Your task to perform on an android device: Search for Italian restaurants on Maps Image 0: 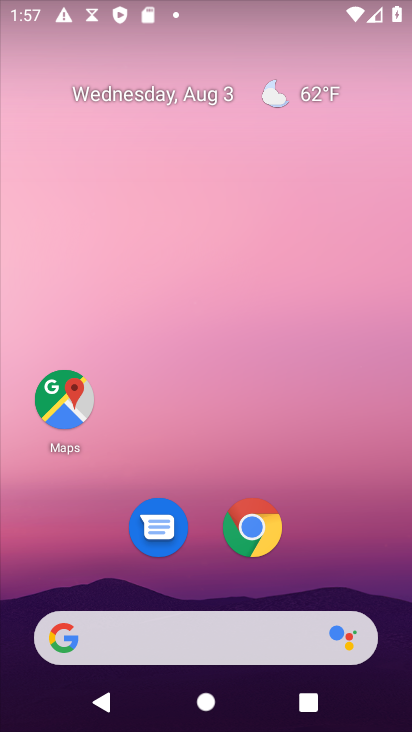
Step 0: click (51, 395)
Your task to perform on an android device: Search for Italian restaurants on Maps Image 1: 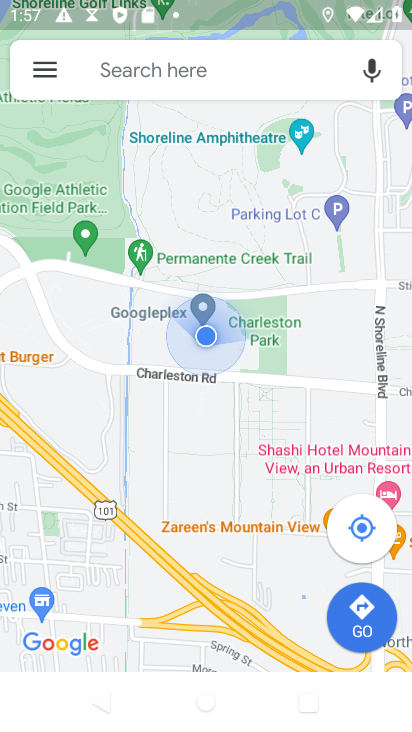
Step 1: click (227, 59)
Your task to perform on an android device: Search for Italian restaurants on Maps Image 2: 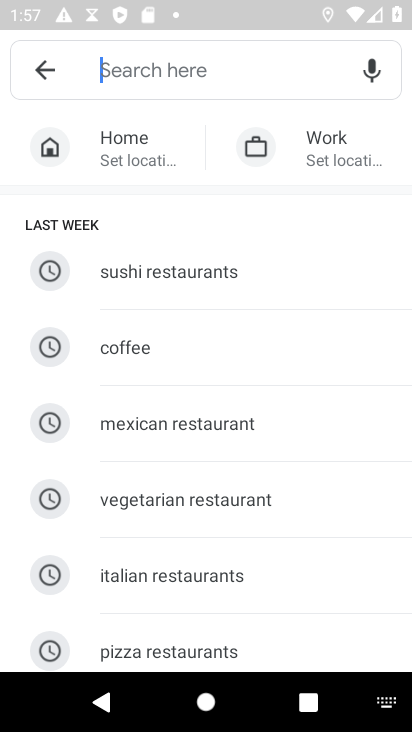
Step 2: type "Italian restaurants"
Your task to perform on an android device: Search for Italian restaurants on Maps Image 3: 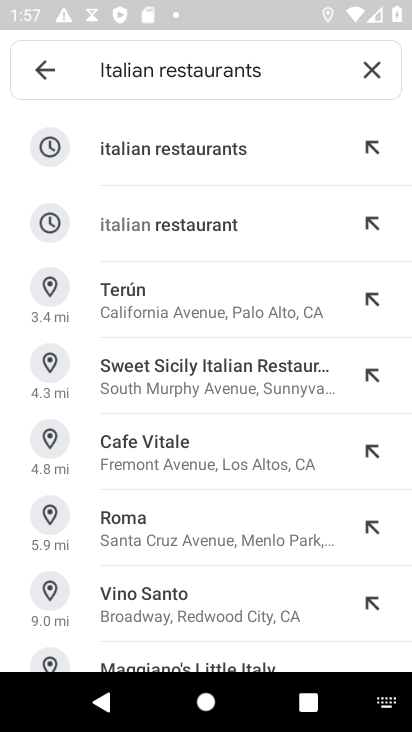
Step 3: click (179, 148)
Your task to perform on an android device: Search for Italian restaurants on Maps Image 4: 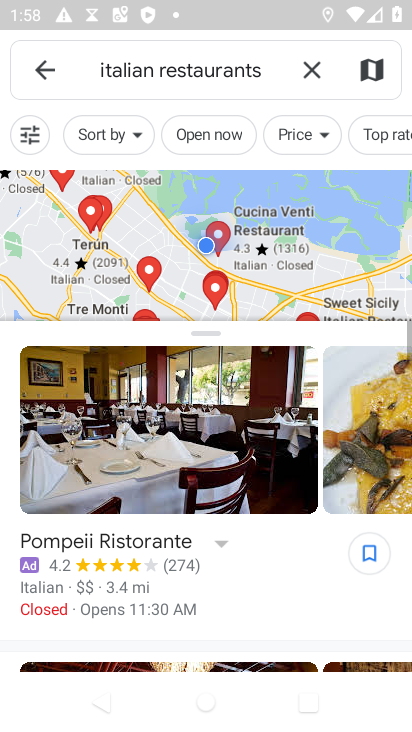
Step 4: task complete